Your task to perform on an android device: Go to notification settings Image 0: 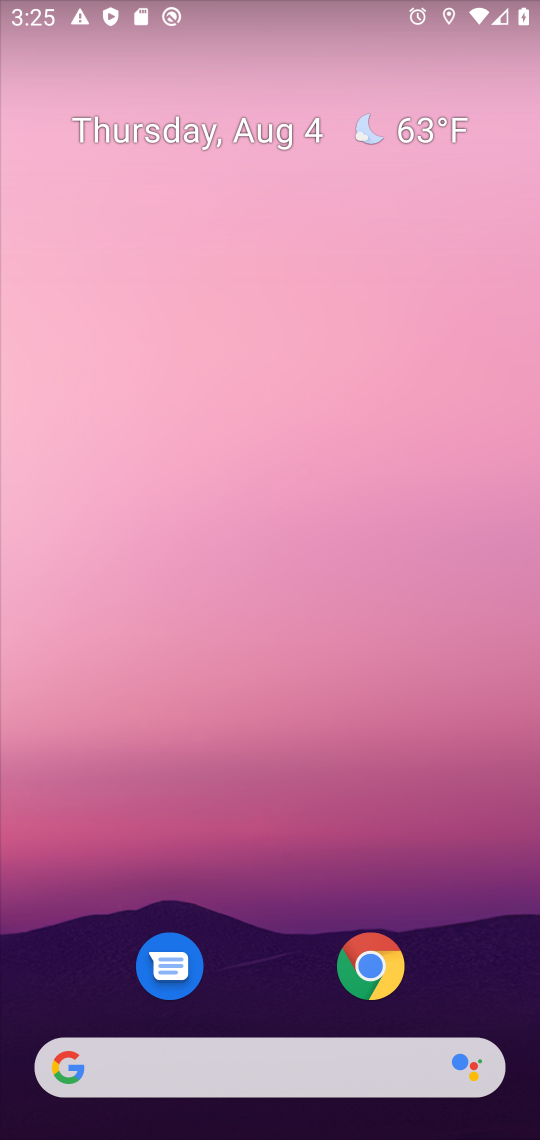
Step 0: drag from (240, 1010) to (269, 219)
Your task to perform on an android device: Go to notification settings Image 1: 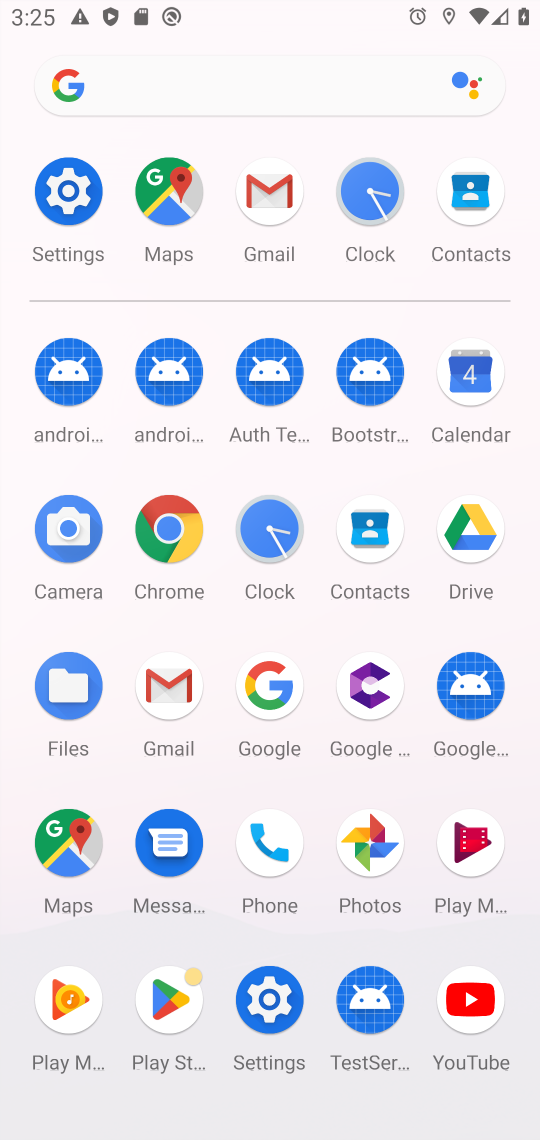
Step 1: click (71, 194)
Your task to perform on an android device: Go to notification settings Image 2: 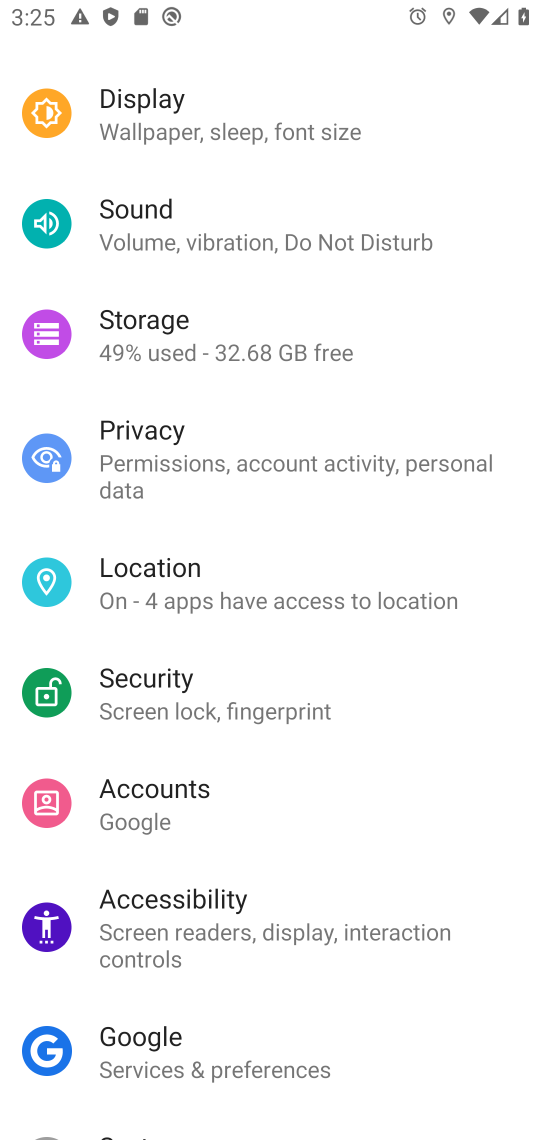
Step 2: drag from (406, 396) to (379, 1027)
Your task to perform on an android device: Go to notification settings Image 3: 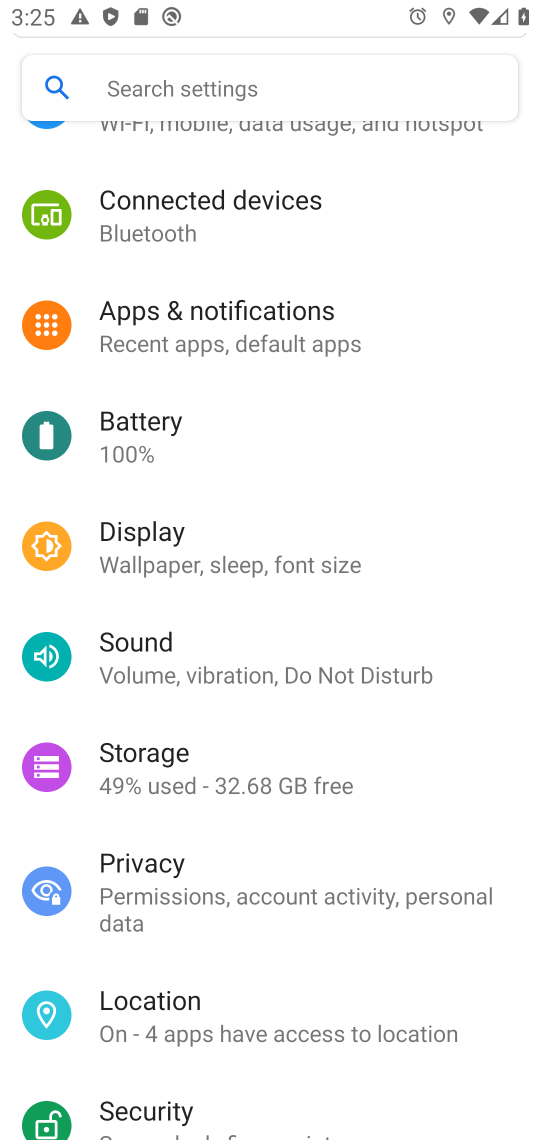
Step 3: click (209, 316)
Your task to perform on an android device: Go to notification settings Image 4: 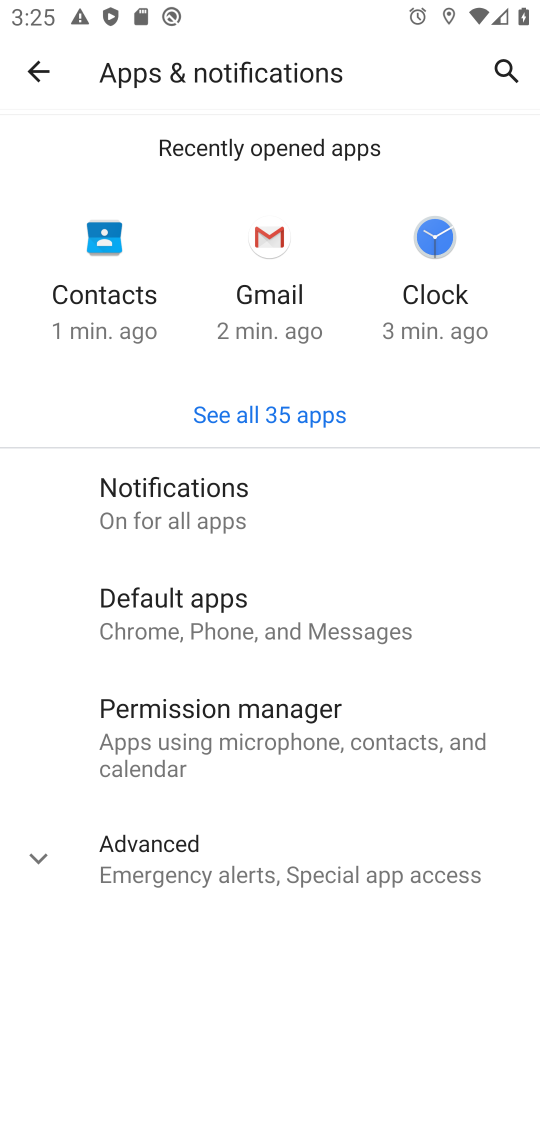
Step 4: click (173, 489)
Your task to perform on an android device: Go to notification settings Image 5: 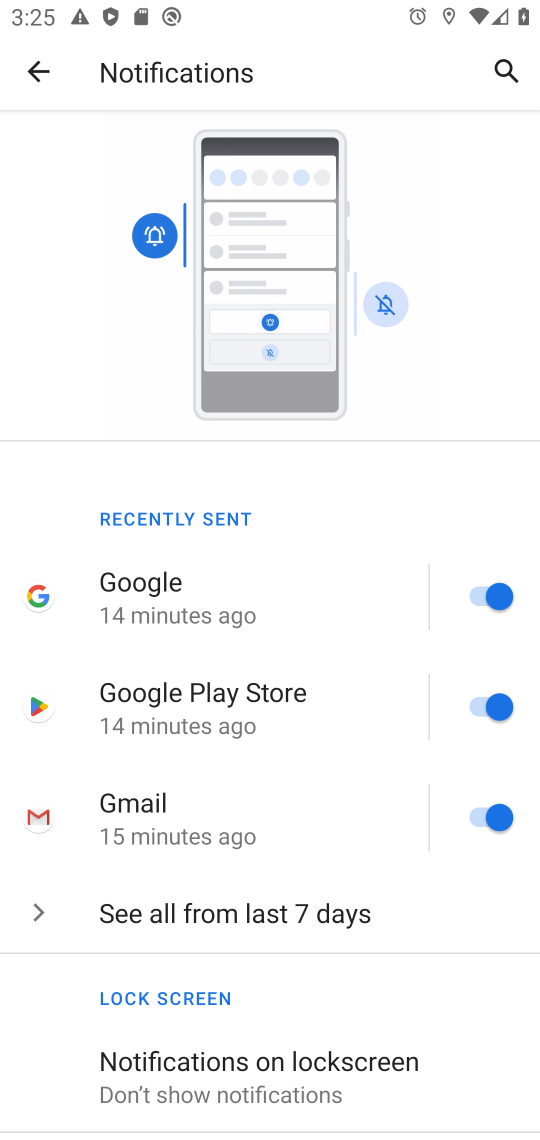
Step 5: task complete